Your task to perform on an android device: open app "McDonald's" (install if not already installed) Image 0: 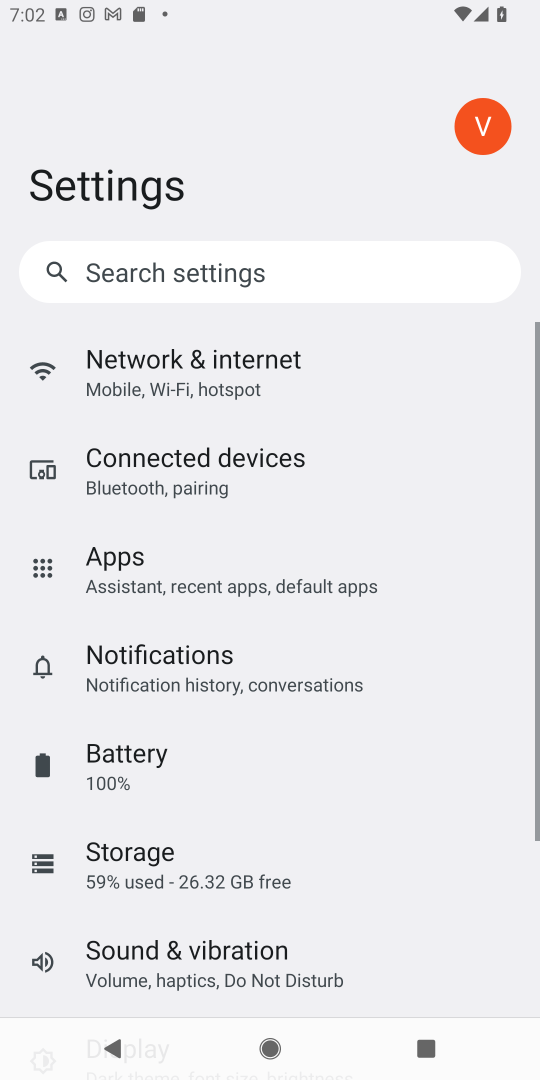
Step 0: press home button
Your task to perform on an android device: open app "McDonald's" (install if not already installed) Image 1: 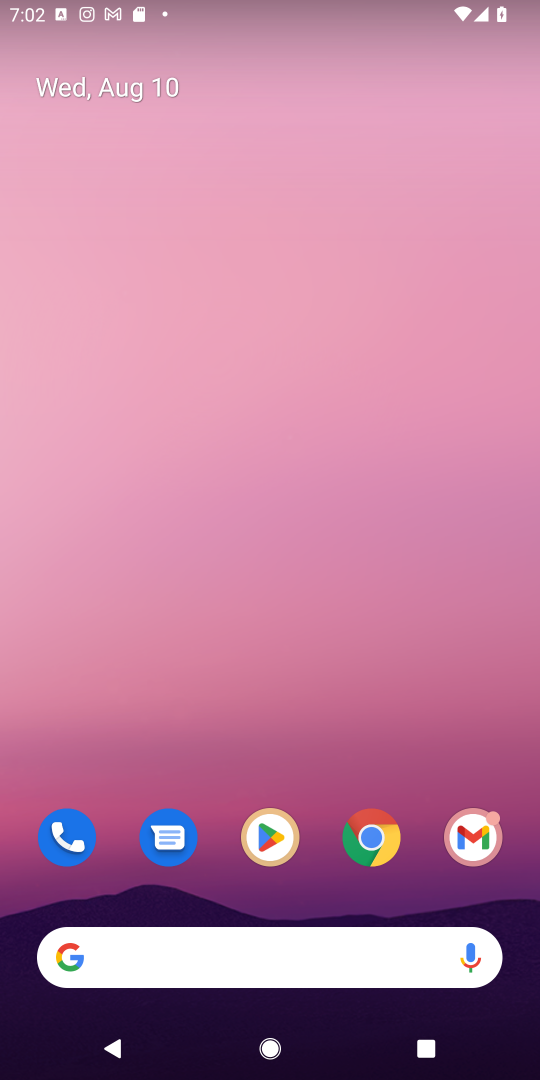
Step 1: click (269, 837)
Your task to perform on an android device: open app "McDonald's" (install if not already installed) Image 2: 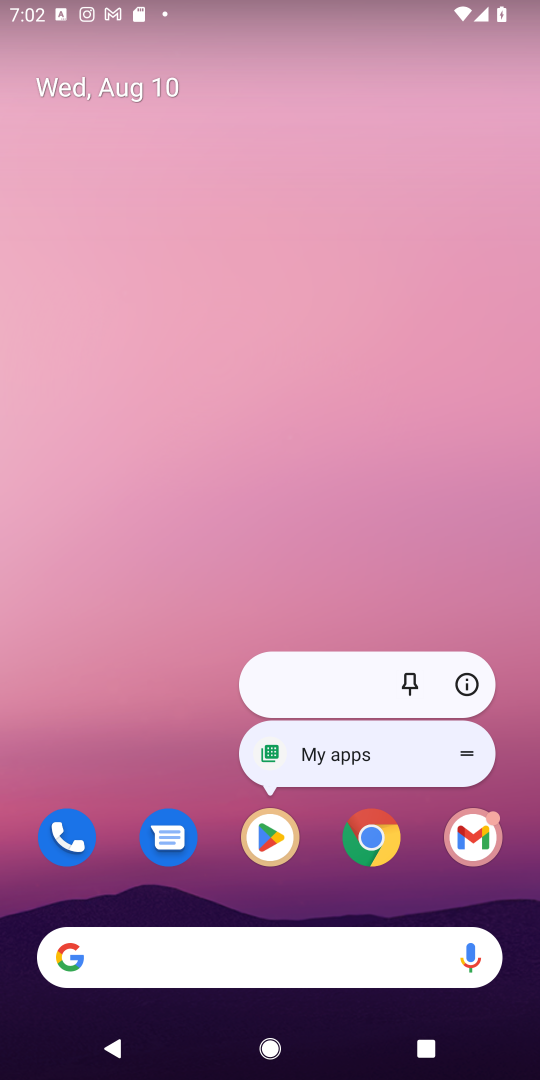
Step 2: click (269, 838)
Your task to perform on an android device: open app "McDonald's" (install if not already installed) Image 3: 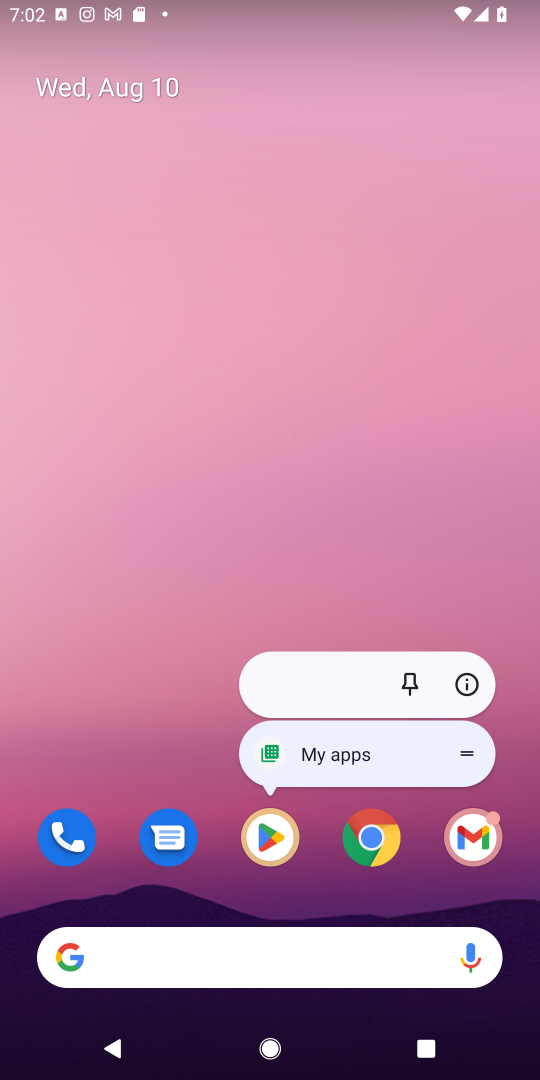
Step 3: click (263, 846)
Your task to perform on an android device: open app "McDonald's" (install if not already installed) Image 4: 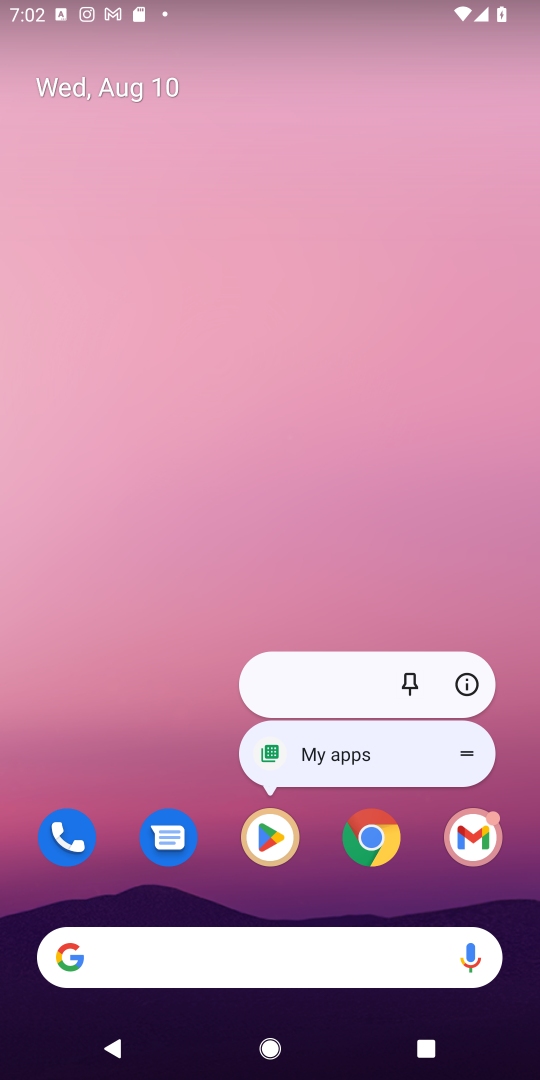
Step 4: click (263, 843)
Your task to perform on an android device: open app "McDonald's" (install if not already installed) Image 5: 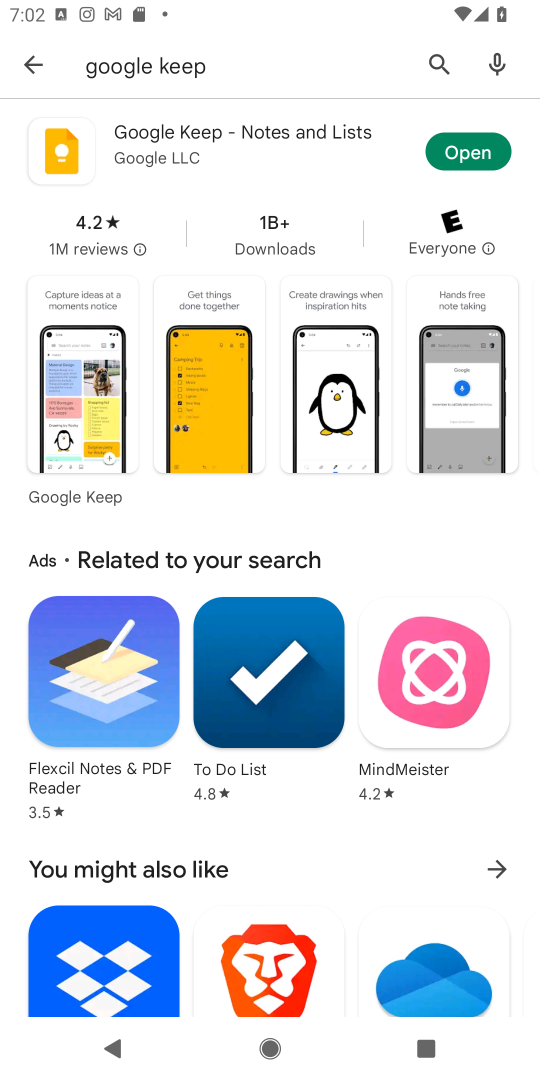
Step 5: click (442, 69)
Your task to perform on an android device: open app "McDonald's" (install if not already installed) Image 6: 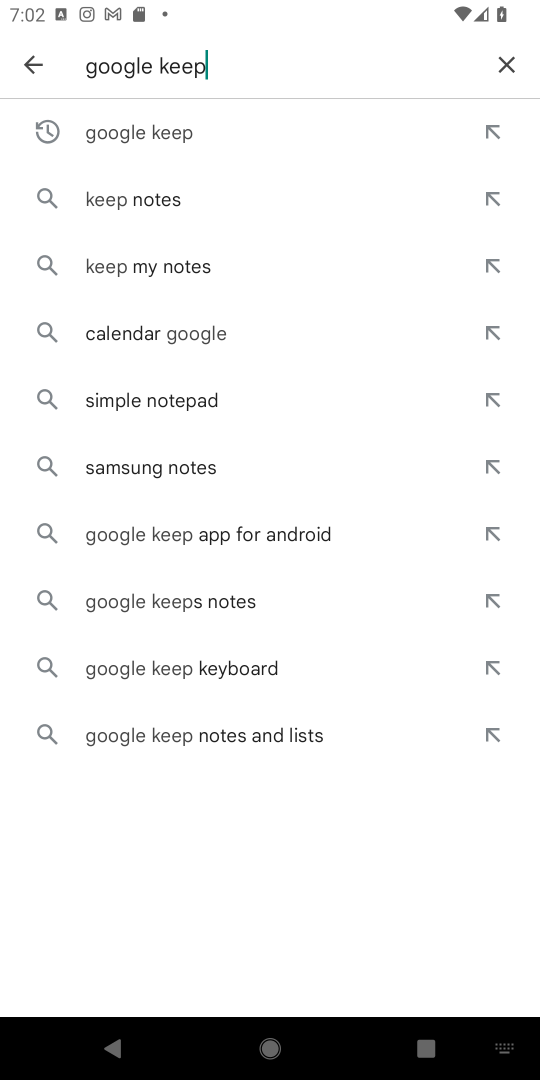
Step 6: click (124, 126)
Your task to perform on an android device: open app "McDonald's" (install if not already installed) Image 7: 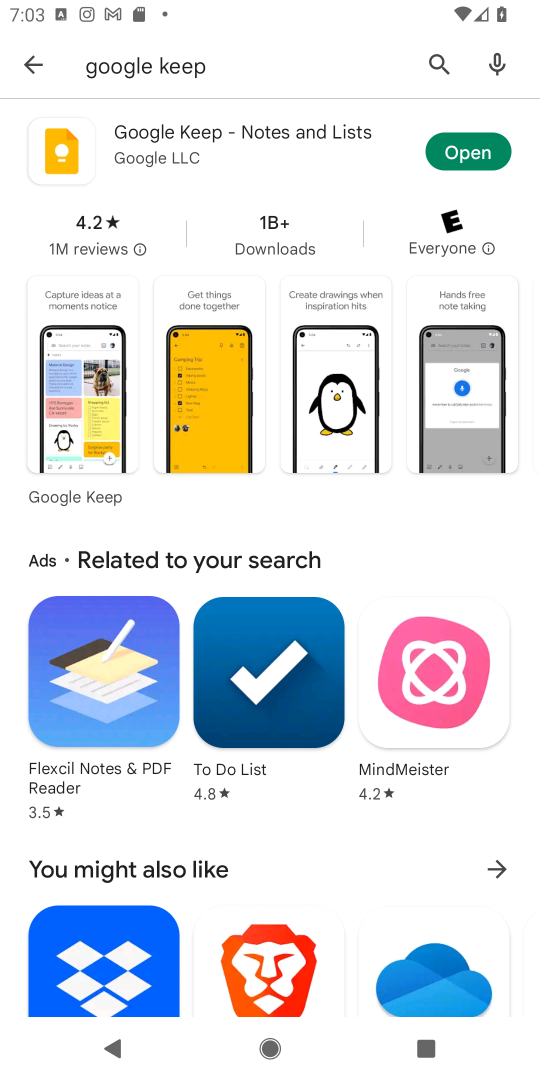
Step 7: click (452, 55)
Your task to perform on an android device: open app "McDonald's" (install if not already installed) Image 8: 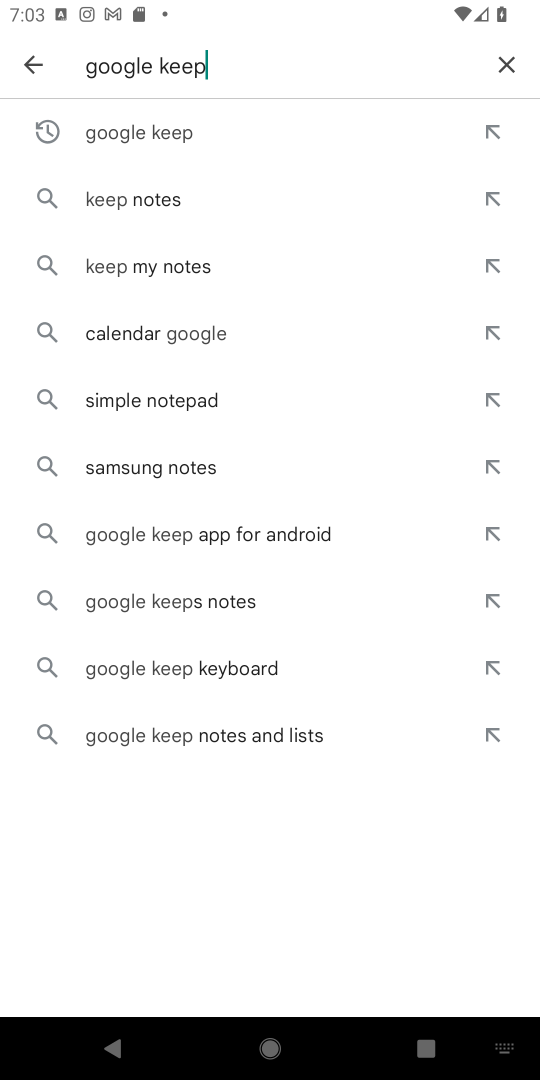
Step 8: click (502, 58)
Your task to perform on an android device: open app "McDonald's" (install if not already installed) Image 9: 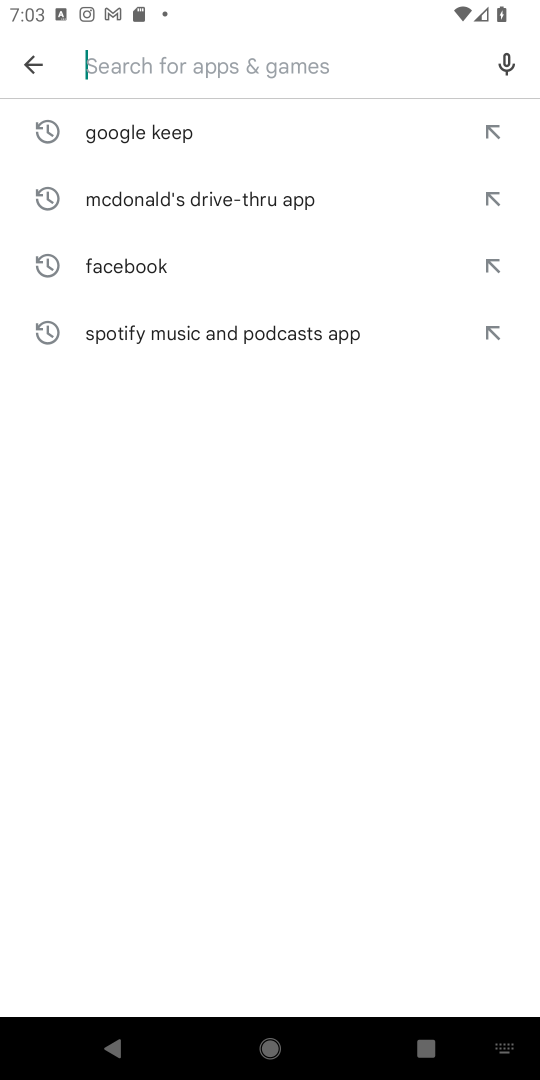
Step 9: type "McDonald's"
Your task to perform on an android device: open app "McDonald's" (install if not already installed) Image 10: 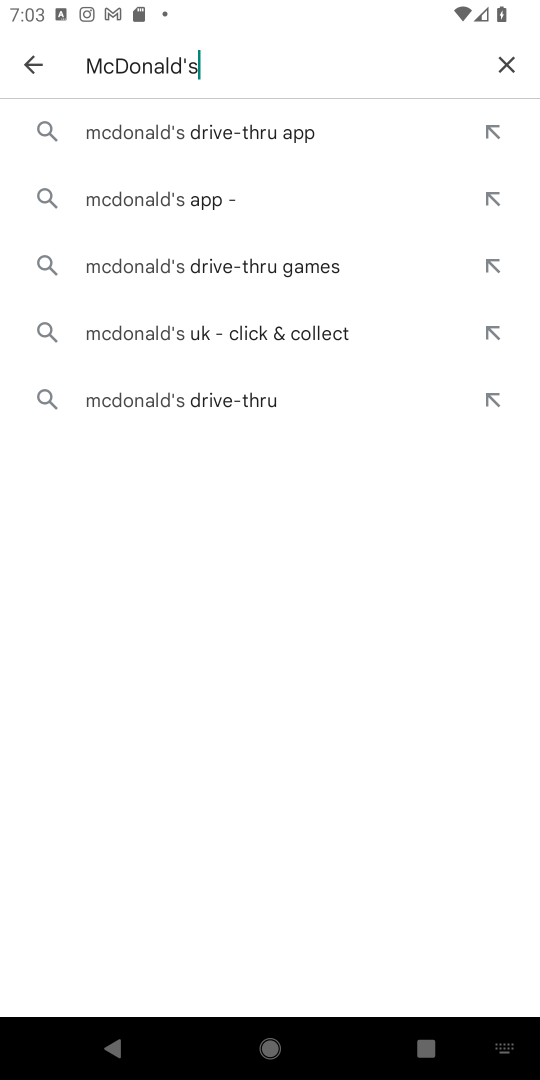
Step 10: click (238, 118)
Your task to perform on an android device: open app "McDonald's" (install if not already installed) Image 11: 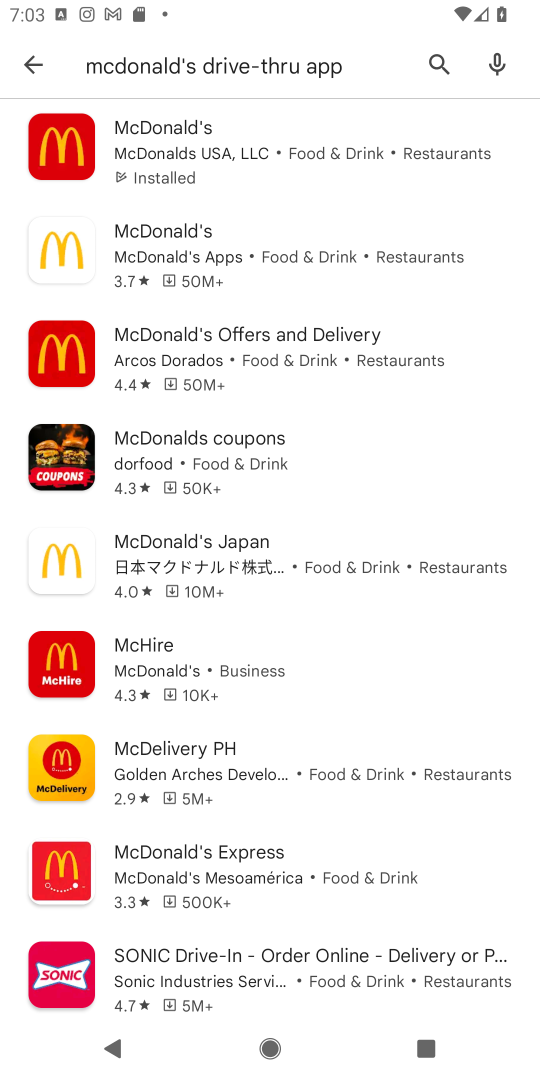
Step 11: click (211, 142)
Your task to perform on an android device: open app "McDonald's" (install if not already installed) Image 12: 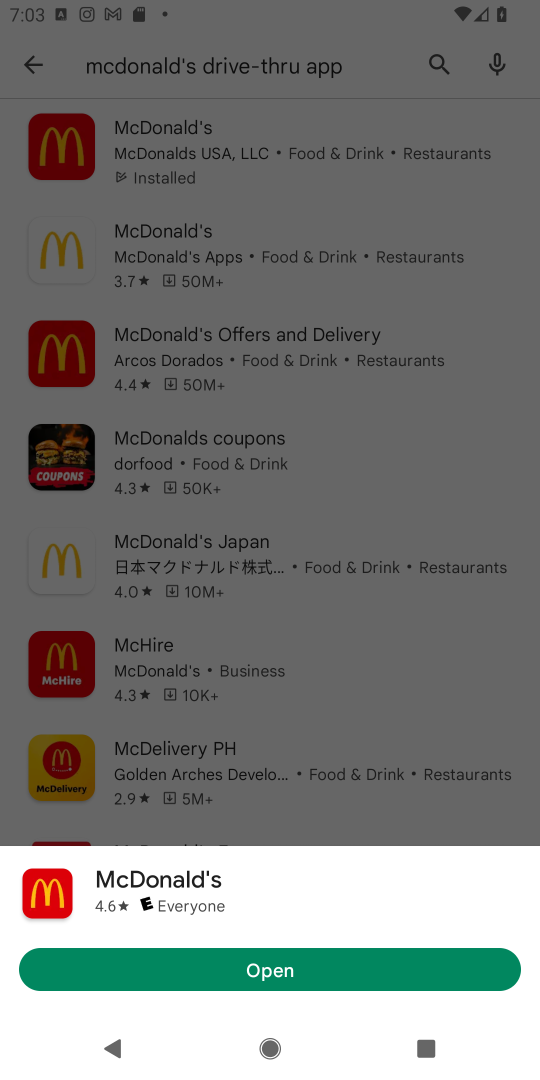
Step 12: click (268, 971)
Your task to perform on an android device: open app "McDonald's" (install if not already installed) Image 13: 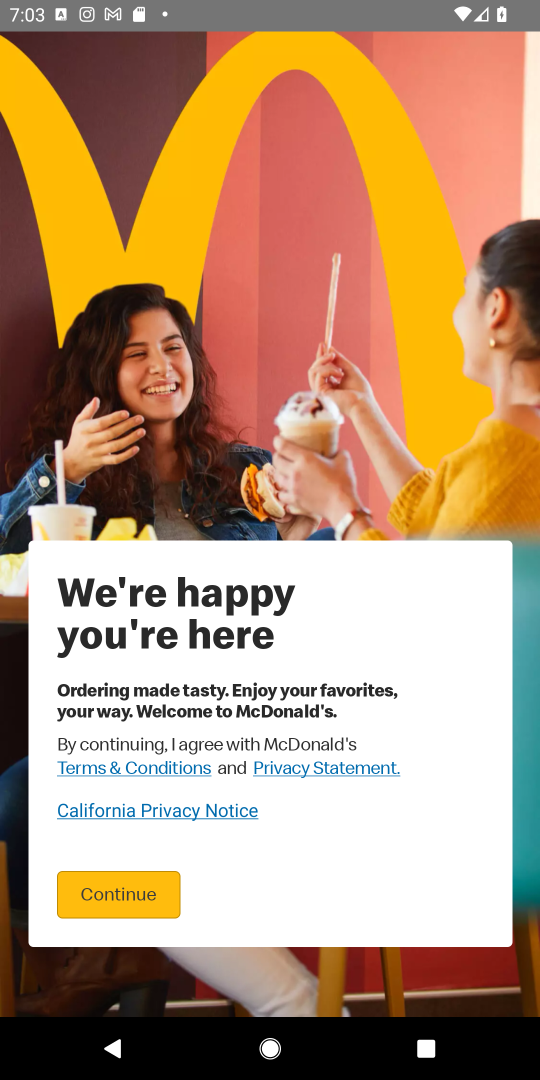
Step 13: task complete